Your task to perform on an android device: What's the weather going to be this weekend? Image 0: 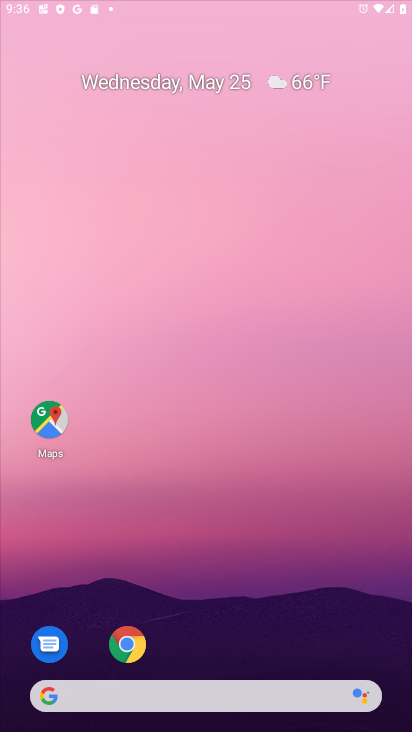
Step 0: press home button
Your task to perform on an android device: What's the weather going to be this weekend? Image 1: 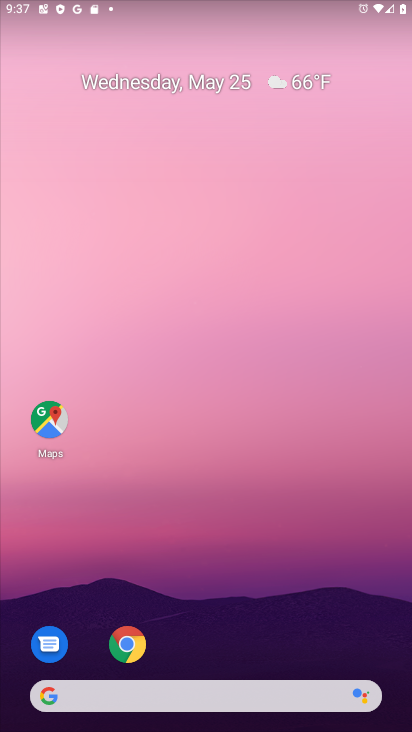
Step 1: click (309, 80)
Your task to perform on an android device: What's the weather going to be this weekend? Image 2: 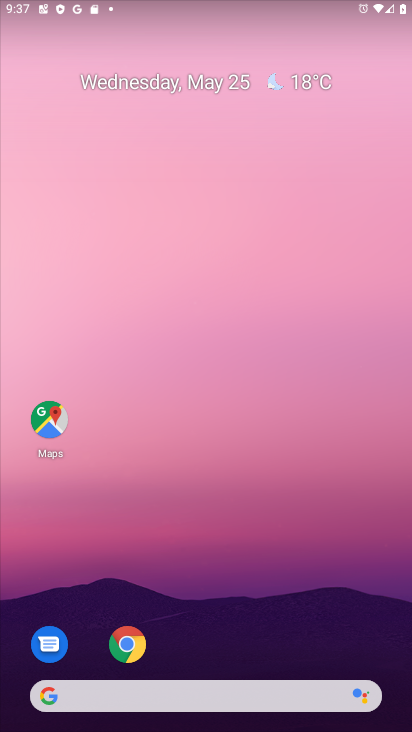
Step 2: click (298, 79)
Your task to perform on an android device: What's the weather going to be this weekend? Image 3: 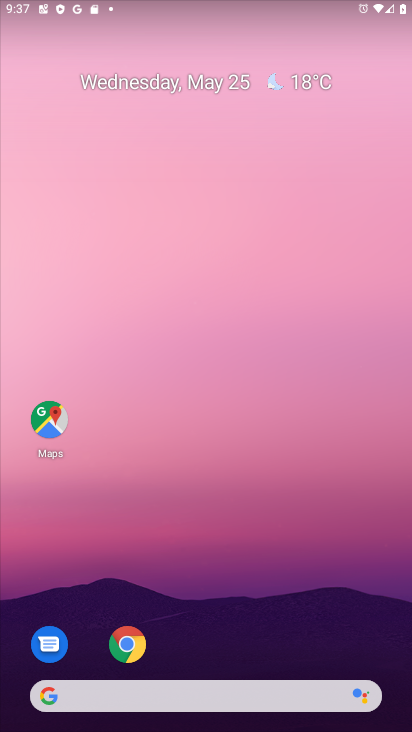
Step 3: click (298, 82)
Your task to perform on an android device: What's the weather going to be this weekend? Image 4: 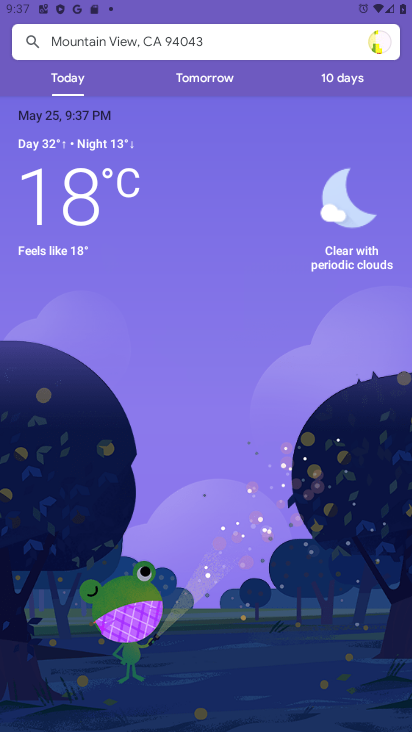
Step 4: click (343, 79)
Your task to perform on an android device: What's the weather going to be this weekend? Image 5: 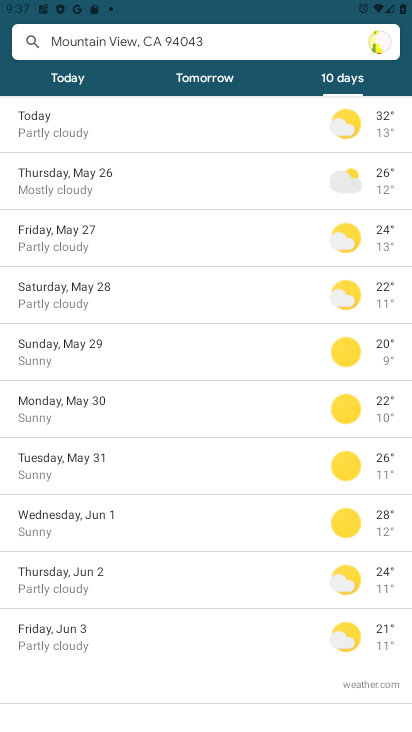
Step 5: task complete